Your task to perform on an android device: Open Chrome and go to settings Image 0: 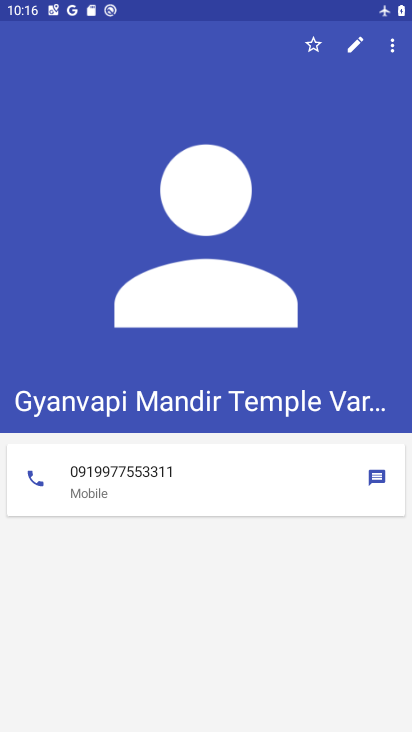
Step 0: press home button
Your task to perform on an android device: Open Chrome and go to settings Image 1: 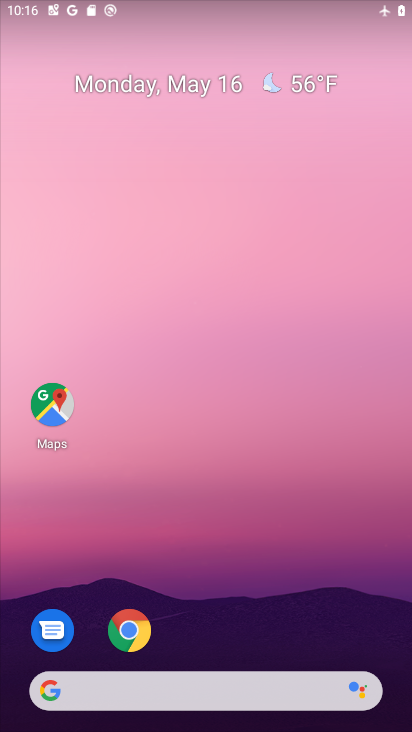
Step 1: click (122, 624)
Your task to perform on an android device: Open Chrome and go to settings Image 2: 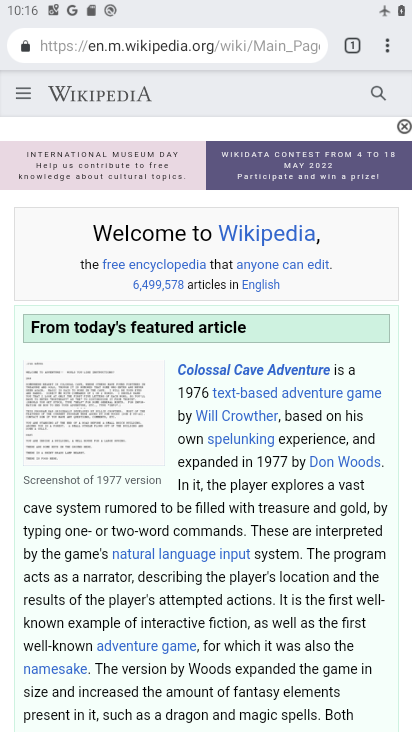
Step 2: click (388, 45)
Your task to perform on an android device: Open Chrome and go to settings Image 3: 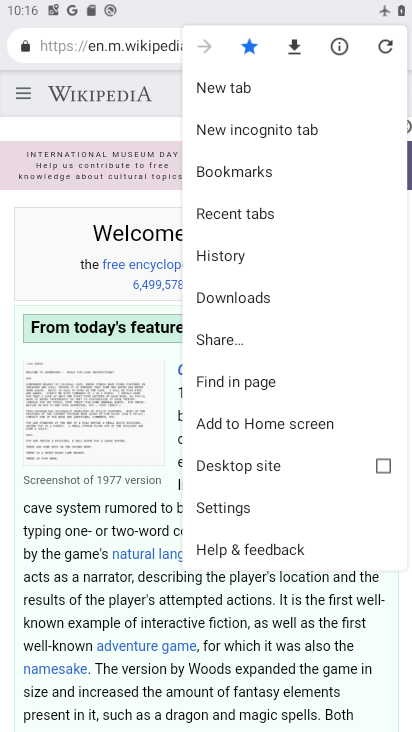
Step 3: click (233, 498)
Your task to perform on an android device: Open Chrome and go to settings Image 4: 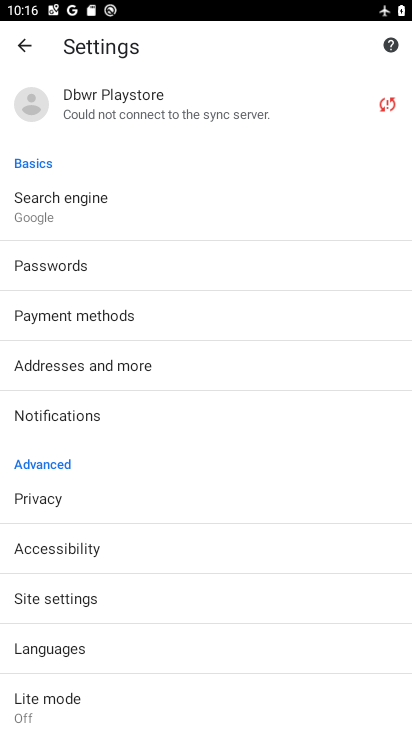
Step 4: task complete